Your task to perform on an android device: Show me productivity apps on the Play Store Image 0: 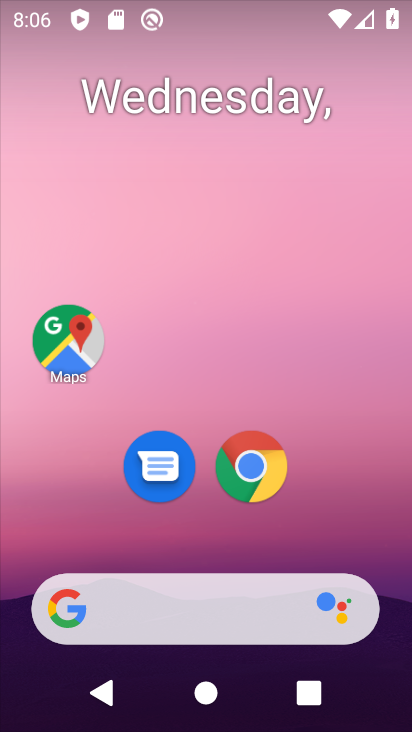
Step 0: drag from (172, 555) to (321, 12)
Your task to perform on an android device: Show me productivity apps on the Play Store Image 1: 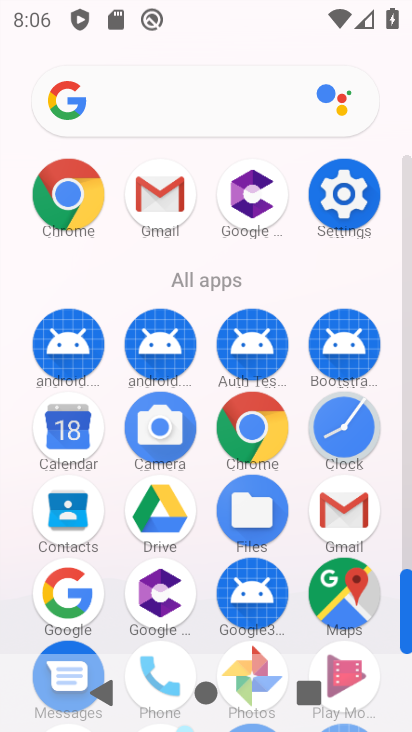
Step 1: drag from (119, 591) to (159, 258)
Your task to perform on an android device: Show me productivity apps on the Play Store Image 2: 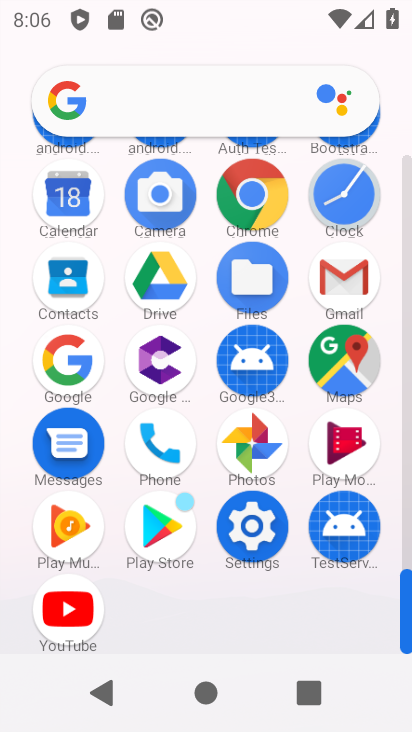
Step 2: click (164, 523)
Your task to perform on an android device: Show me productivity apps on the Play Store Image 3: 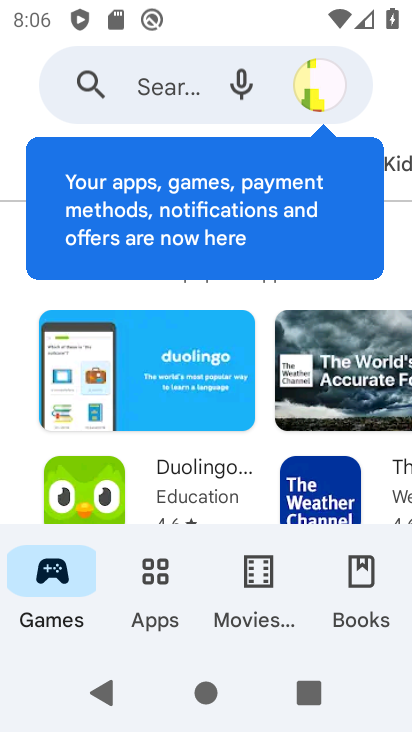
Step 3: click (166, 572)
Your task to perform on an android device: Show me productivity apps on the Play Store Image 4: 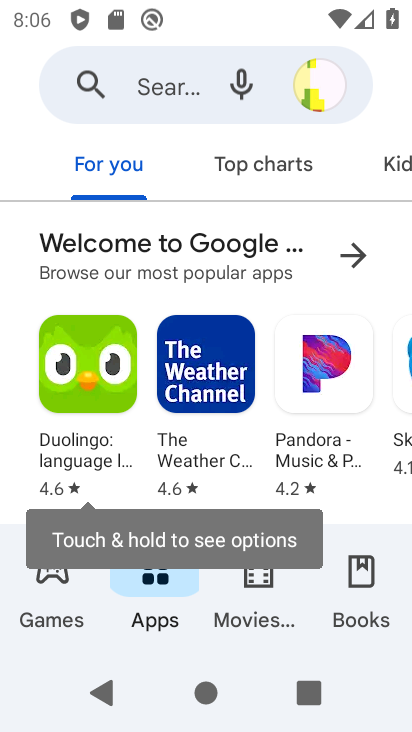
Step 4: drag from (289, 180) to (62, 159)
Your task to perform on an android device: Show me productivity apps on the Play Store Image 5: 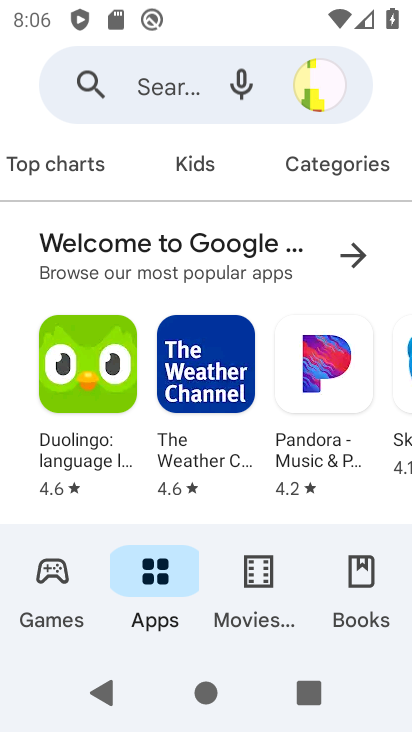
Step 5: click (330, 165)
Your task to perform on an android device: Show me productivity apps on the Play Store Image 6: 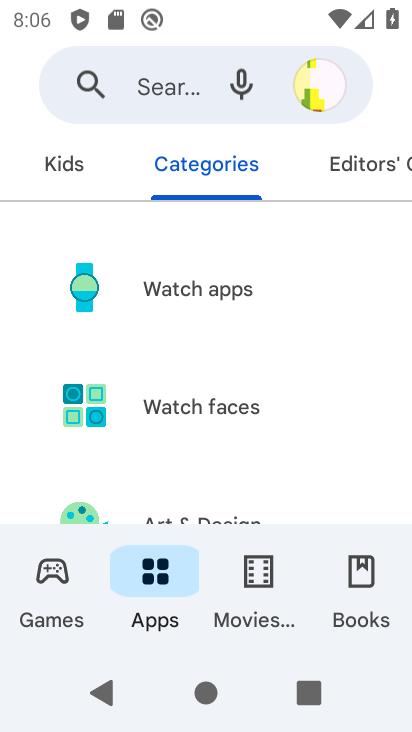
Step 6: drag from (210, 469) to (285, 156)
Your task to perform on an android device: Show me productivity apps on the Play Store Image 7: 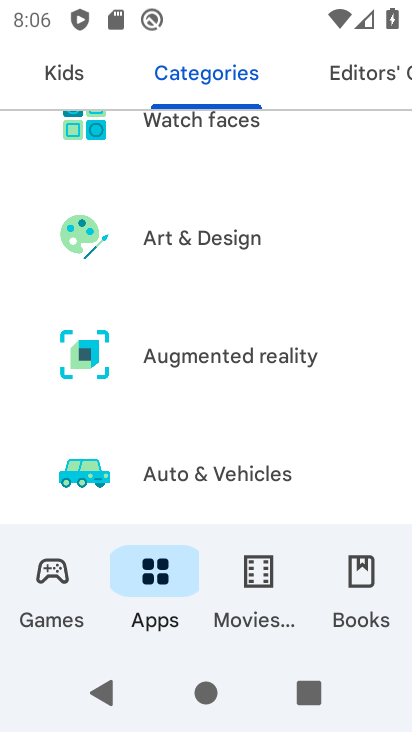
Step 7: drag from (218, 425) to (272, 142)
Your task to perform on an android device: Show me productivity apps on the Play Store Image 8: 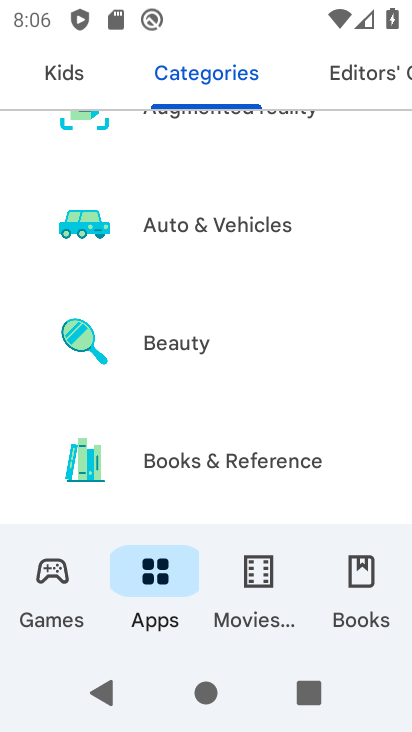
Step 8: drag from (210, 481) to (247, 34)
Your task to perform on an android device: Show me productivity apps on the Play Store Image 9: 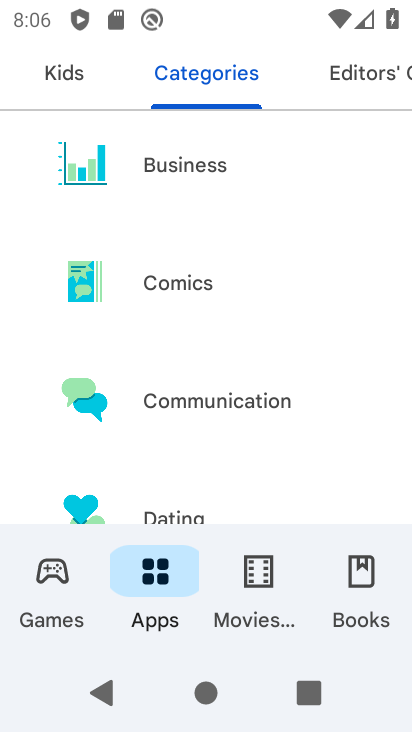
Step 9: drag from (242, 446) to (326, 2)
Your task to perform on an android device: Show me productivity apps on the Play Store Image 10: 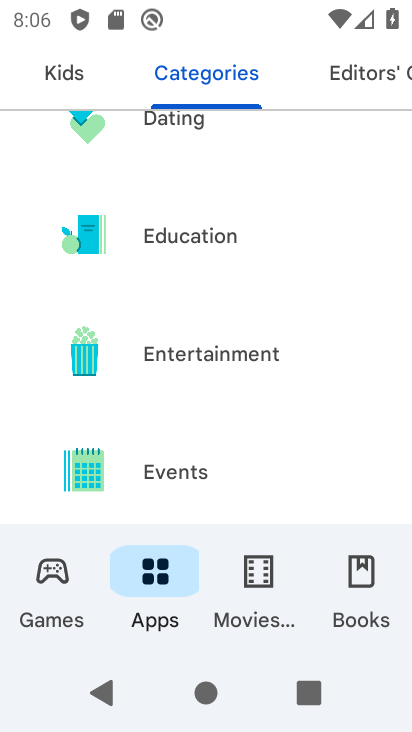
Step 10: drag from (226, 424) to (271, 155)
Your task to perform on an android device: Show me productivity apps on the Play Store Image 11: 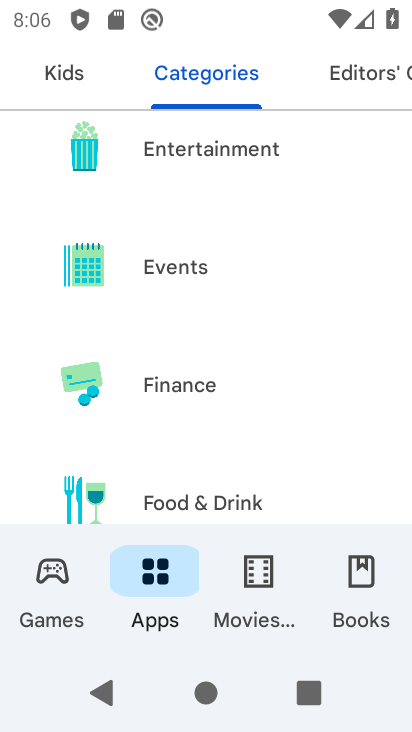
Step 11: drag from (190, 491) to (248, 166)
Your task to perform on an android device: Show me productivity apps on the Play Store Image 12: 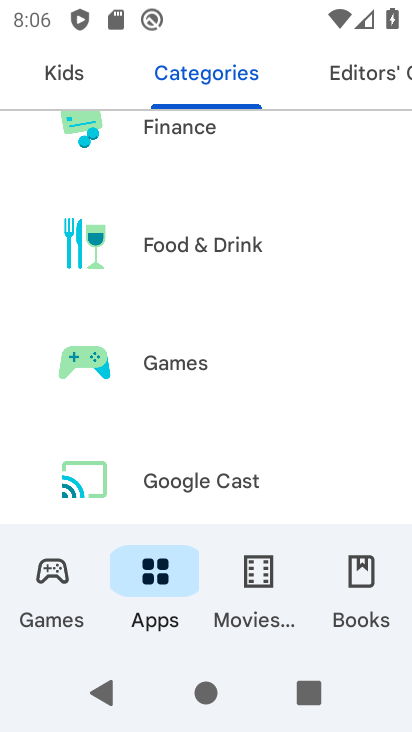
Step 12: drag from (224, 479) to (274, 109)
Your task to perform on an android device: Show me productivity apps on the Play Store Image 13: 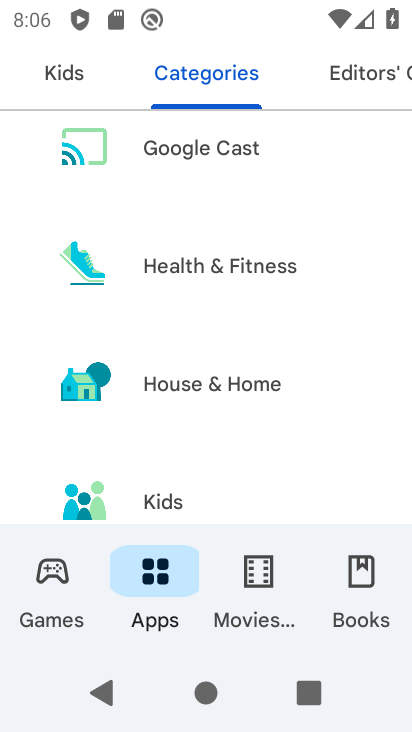
Step 13: drag from (206, 440) to (254, 86)
Your task to perform on an android device: Show me productivity apps on the Play Store Image 14: 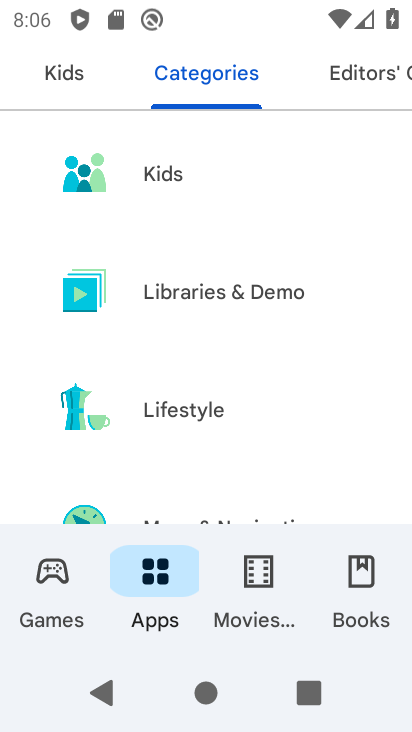
Step 14: drag from (205, 459) to (249, 173)
Your task to perform on an android device: Show me productivity apps on the Play Store Image 15: 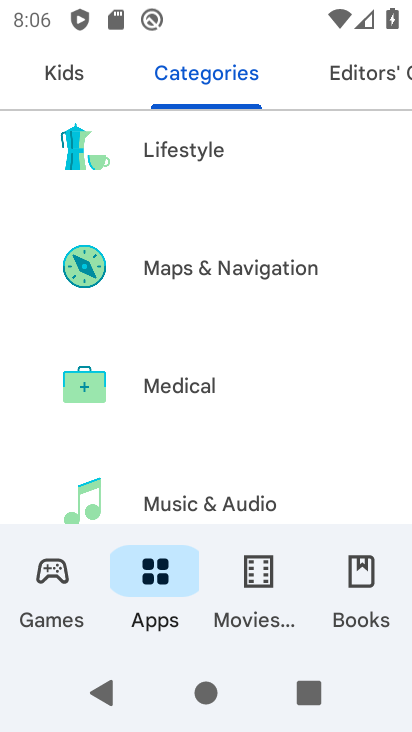
Step 15: drag from (251, 451) to (278, 160)
Your task to perform on an android device: Show me productivity apps on the Play Store Image 16: 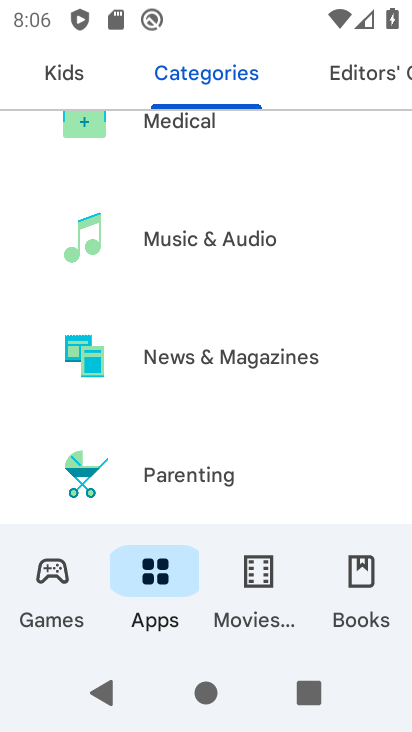
Step 16: drag from (199, 495) to (253, 189)
Your task to perform on an android device: Show me productivity apps on the Play Store Image 17: 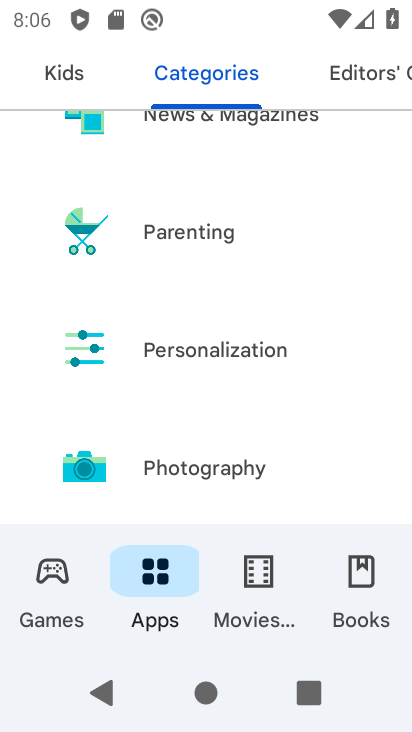
Step 17: drag from (242, 425) to (308, 132)
Your task to perform on an android device: Show me productivity apps on the Play Store Image 18: 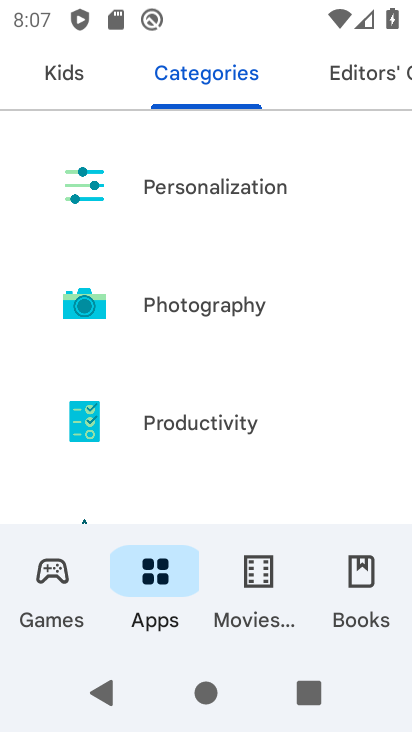
Step 18: click (216, 422)
Your task to perform on an android device: Show me productivity apps on the Play Store Image 19: 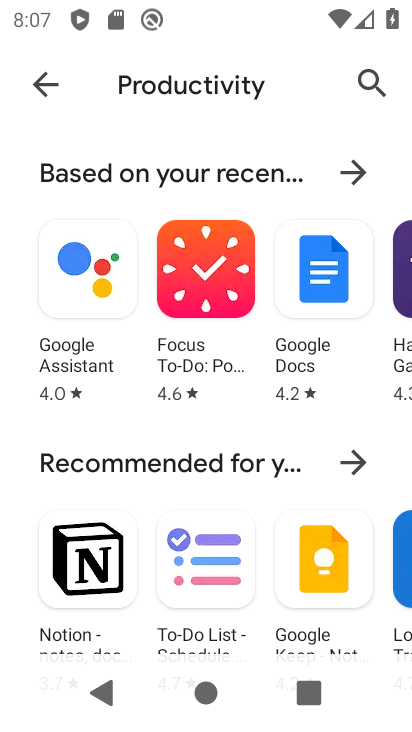
Step 19: task complete